Your task to perform on an android device: Clear the cart on newegg. Search for lenovo thinkpad on newegg, select the first entry, and add it to the cart. Image 0: 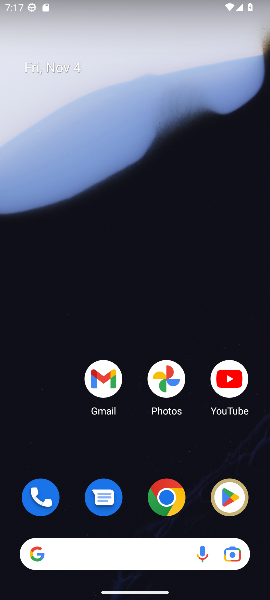
Step 0: click (171, 497)
Your task to perform on an android device: Clear the cart on newegg. Search for lenovo thinkpad on newegg, select the first entry, and add it to the cart. Image 1: 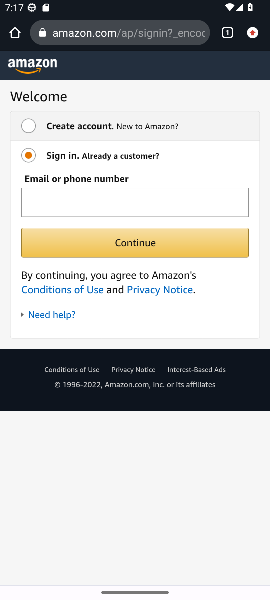
Step 1: click (107, 42)
Your task to perform on an android device: Clear the cart on newegg. Search for lenovo thinkpad on newegg, select the first entry, and add it to the cart. Image 2: 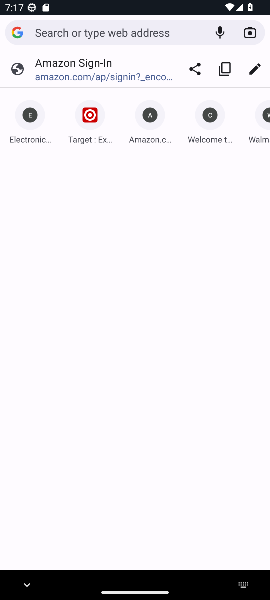
Step 2: type "newegg.com"
Your task to perform on an android device: Clear the cart on newegg. Search for lenovo thinkpad on newegg, select the first entry, and add it to the cart. Image 3: 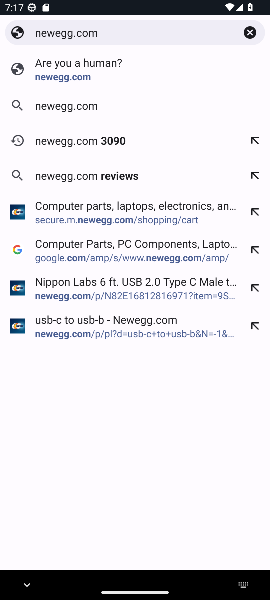
Step 3: click (68, 103)
Your task to perform on an android device: Clear the cart on newegg. Search for lenovo thinkpad on newegg, select the first entry, and add it to the cart. Image 4: 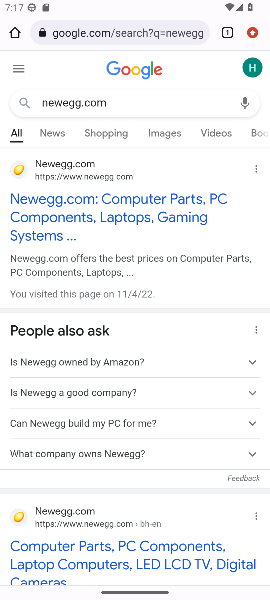
Step 4: click (57, 212)
Your task to perform on an android device: Clear the cart on newegg. Search for lenovo thinkpad on newegg, select the first entry, and add it to the cart. Image 5: 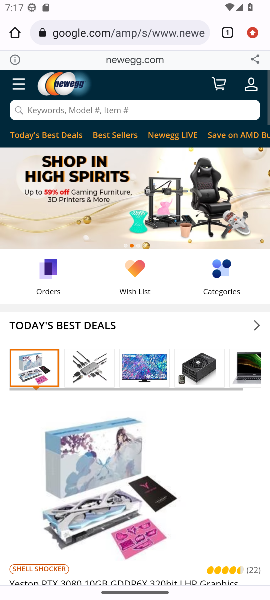
Step 5: click (119, 107)
Your task to perform on an android device: Clear the cart on newegg. Search for lenovo thinkpad on newegg, select the first entry, and add it to the cart. Image 6: 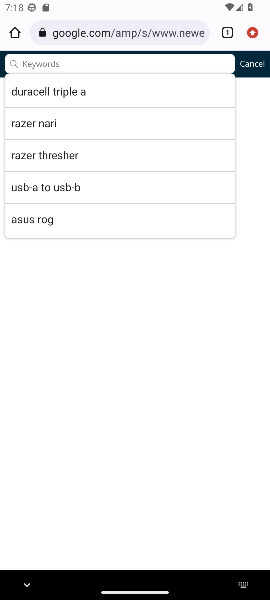
Step 6: type "lenovo thinkpad "
Your task to perform on an android device: Clear the cart on newegg. Search for lenovo thinkpad on newegg, select the first entry, and add it to the cart. Image 7: 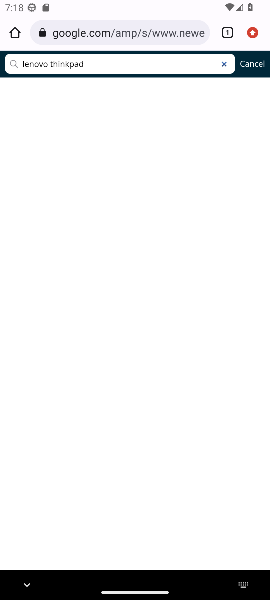
Step 7: click (15, 66)
Your task to perform on an android device: Clear the cart on newegg. Search for lenovo thinkpad on newegg, select the first entry, and add it to the cart. Image 8: 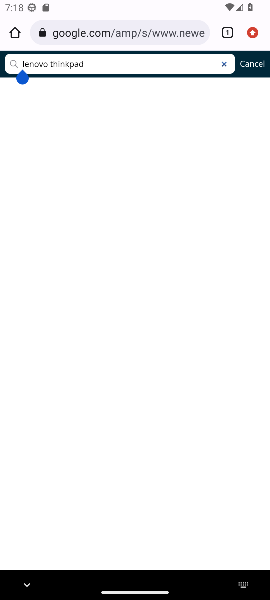
Step 8: task complete